Your task to perform on an android device: toggle notification dots Image 0: 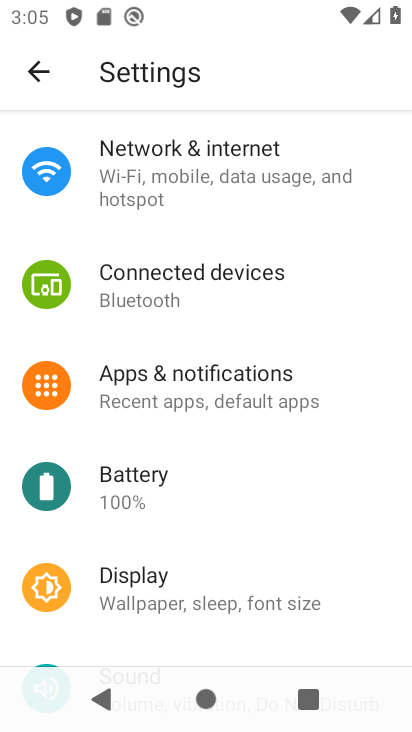
Step 0: drag from (208, 581) to (247, 218)
Your task to perform on an android device: toggle notification dots Image 1: 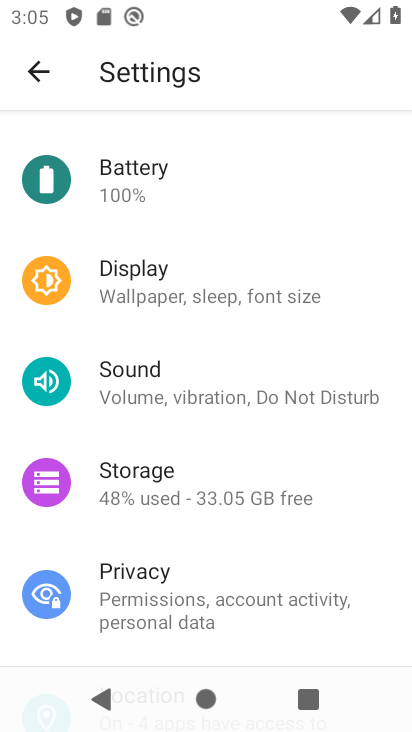
Step 1: drag from (199, 549) to (320, 188)
Your task to perform on an android device: toggle notification dots Image 2: 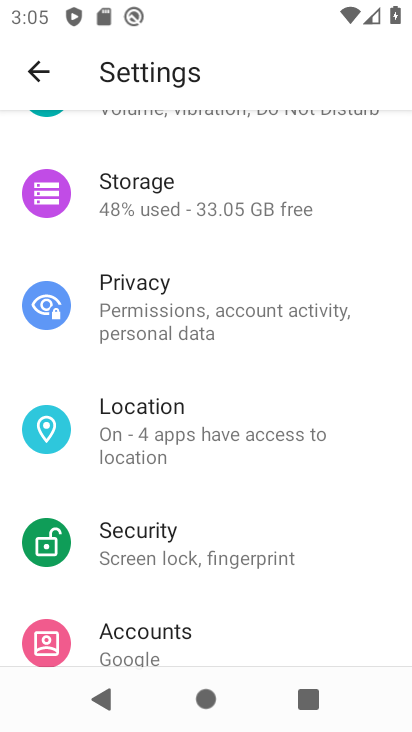
Step 2: drag from (286, 321) to (208, 717)
Your task to perform on an android device: toggle notification dots Image 3: 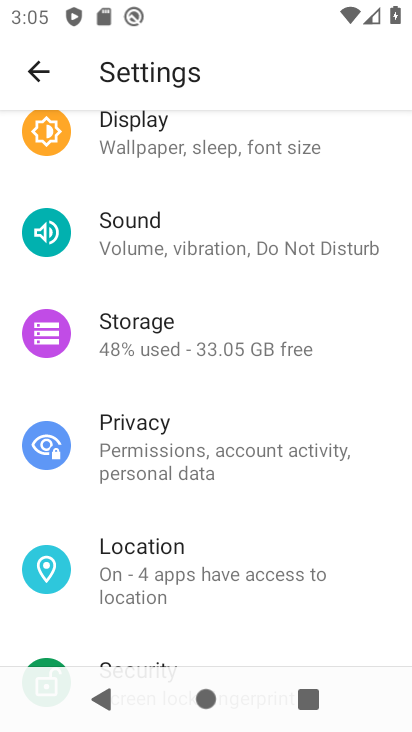
Step 3: drag from (242, 189) to (163, 725)
Your task to perform on an android device: toggle notification dots Image 4: 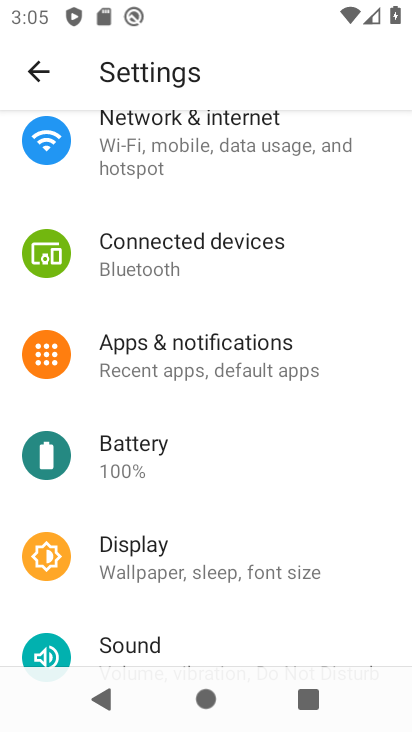
Step 4: click (213, 342)
Your task to perform on an android device: toggle notification dots Image 5: 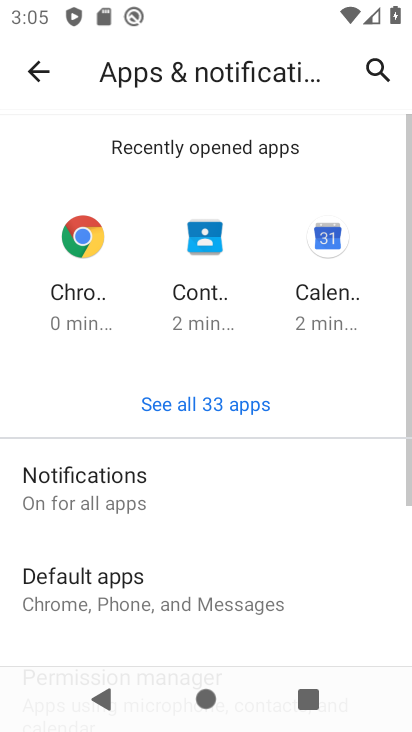
Step 5: click (177, 480)
Your task to perform on an android device: toggle notification dots Image 6: 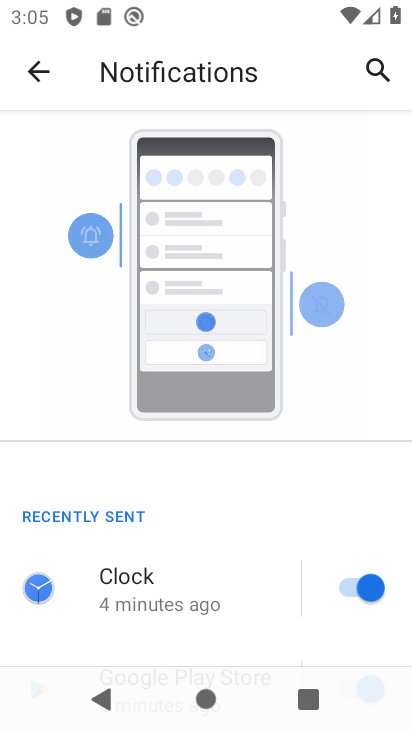
Step 6: drag from (211, 574) to (276, 237)
Your task to perform on an android device: toggle notification dots Image 7: 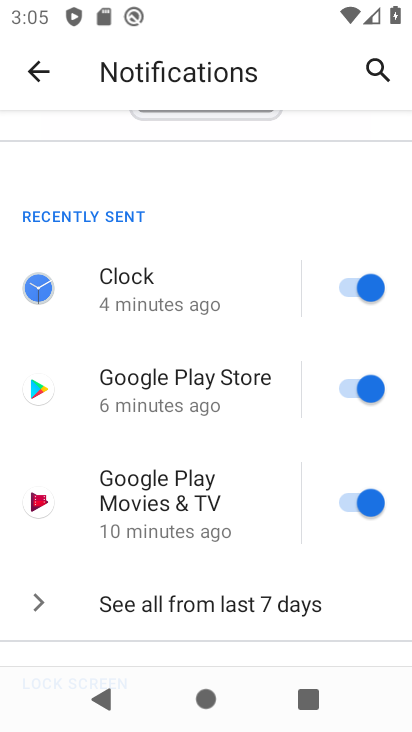
Step 7: click (362, 392)
Your task to perform on an android device: toggle notification dots Image 8: 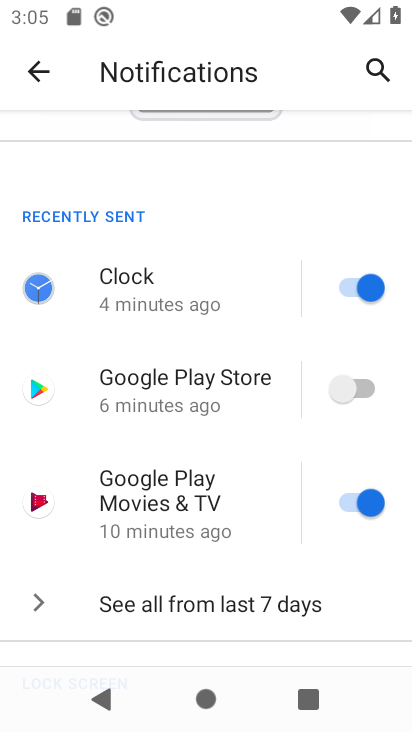
Step 8: click (362, 392)
Your task to perform on an android device: toggle notification dots Image 9: 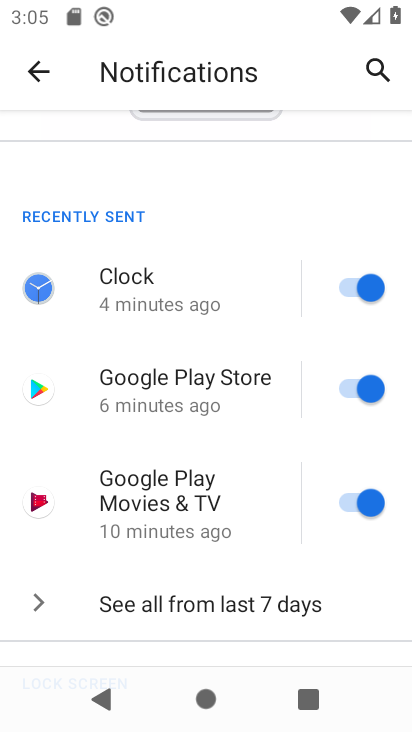
Step 9: task complete